Your task to perform on an android device: check data usage Image 0: 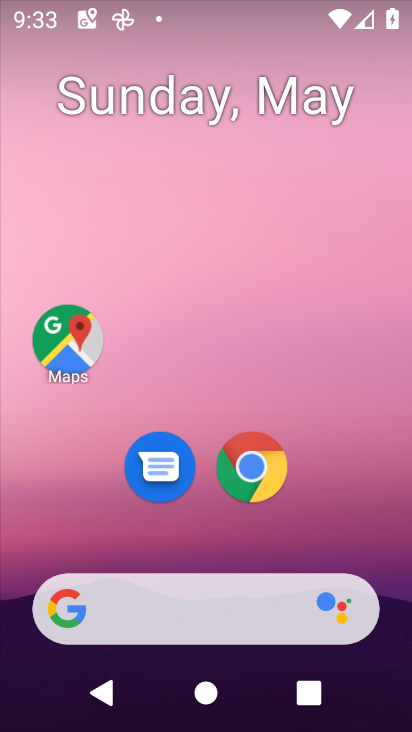
Step 0: drag from (359, 520) to (358, 115)
Your task to perform on an android device: check data usage Image 1: 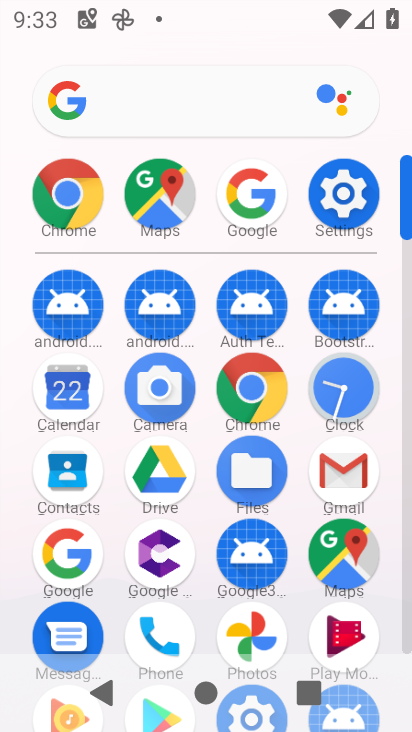
Step 1: click (327, 190)
Your task to perform on an android device: check data usage Image 2: 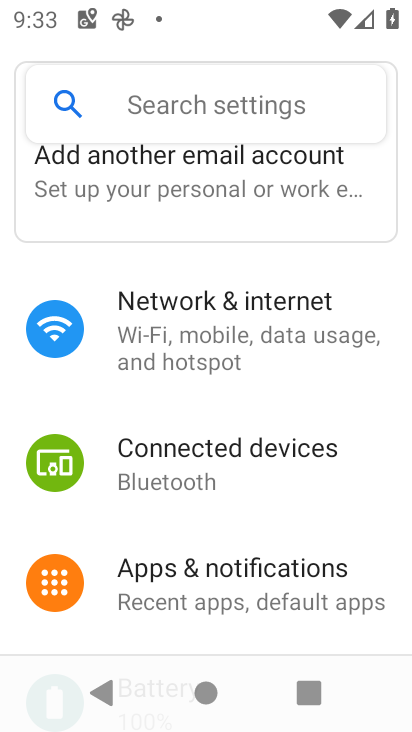
Step 2: drag from (287, 609) to (301, 233)
Your task to perform on an android device: check data usage Image 3: 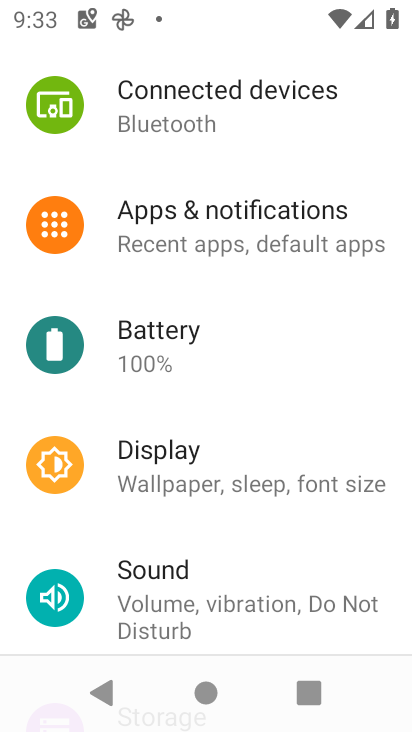
Step 3: drag from (298, 518) to (301, 191)
Your task to perform on an android device: check data usage Image 4: 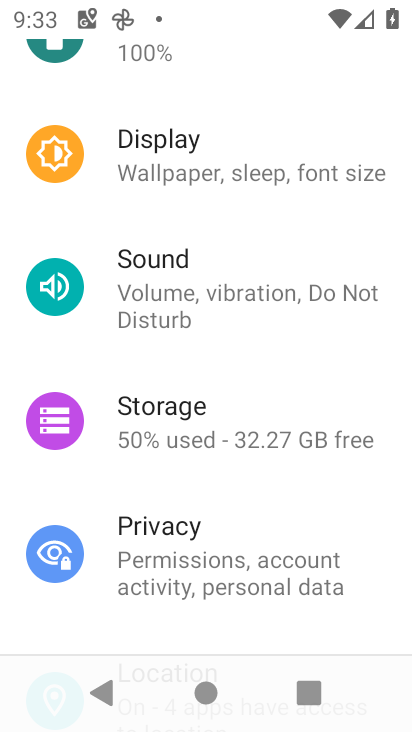
Step 4: drag from (230, 165) to (139, 713)
Your task to perform on an android device: check data usage Image 5: 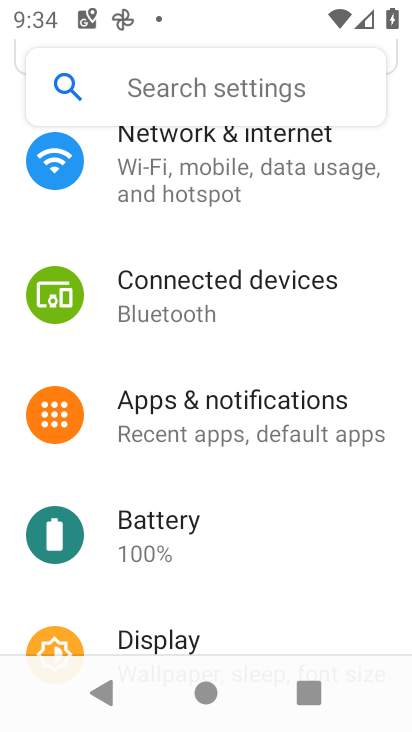
Step 5: drag from (207, 201) to (184, 589)
Your task to perform on an android device: check data usage Image 6: 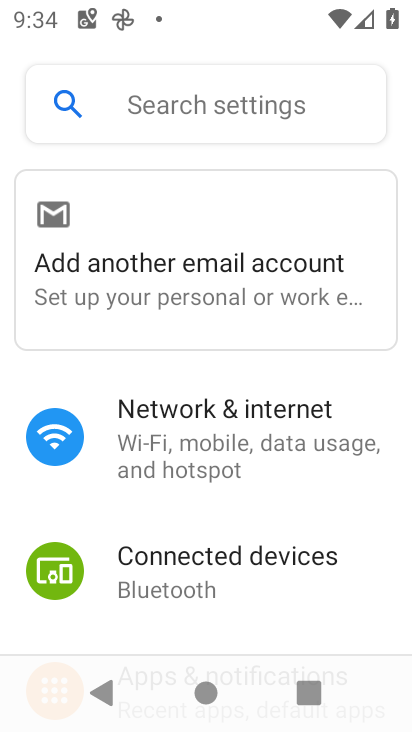
Step 6: click (206, 450)
Your task to perform on an android device: check data usage Image 7: 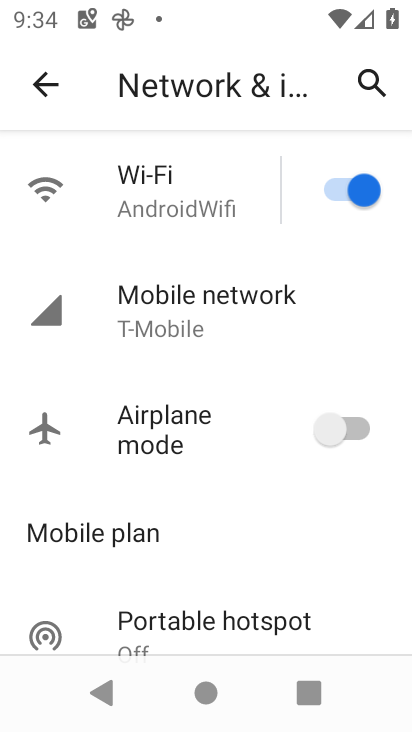
Step 7: click (175, 291)
Your task to perform on an android device: check data usage Image 8: 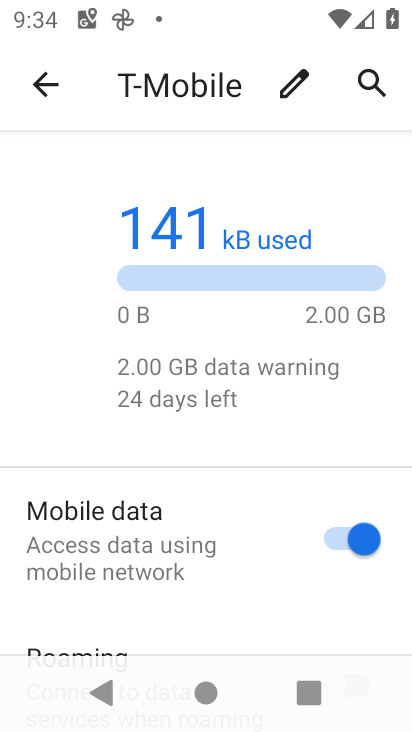
Step 8: task complete